Your task to perform on an android device: open app "Firefox Browser" (install if not already installed), go to login, and select forgot password Image 0: 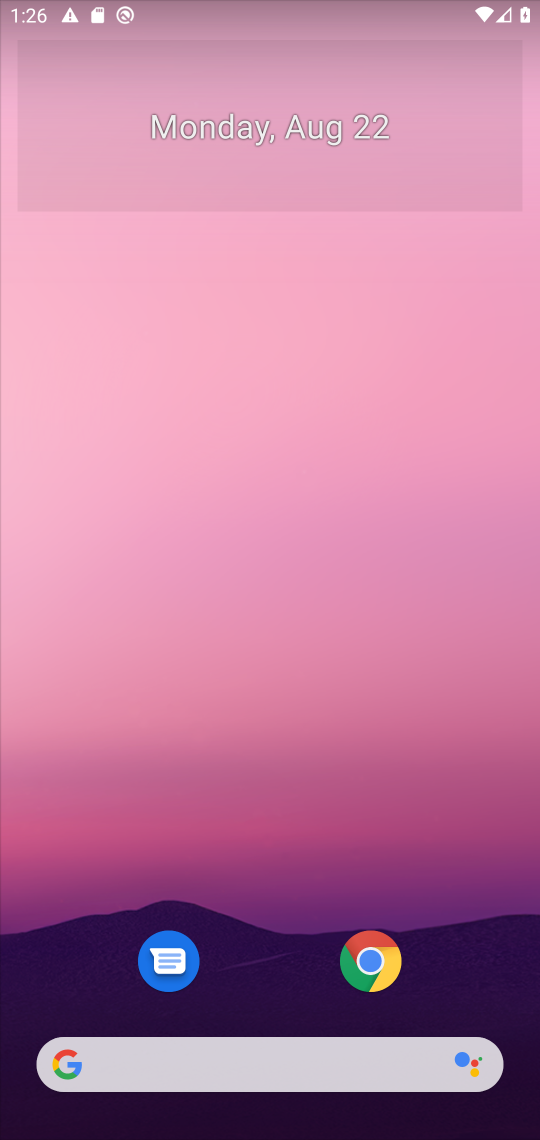
Step 0: press home button
Your task to perform on an android device: open app "Firefox Browser" (install if not already installed), go to login, and select forgot password Image 1: 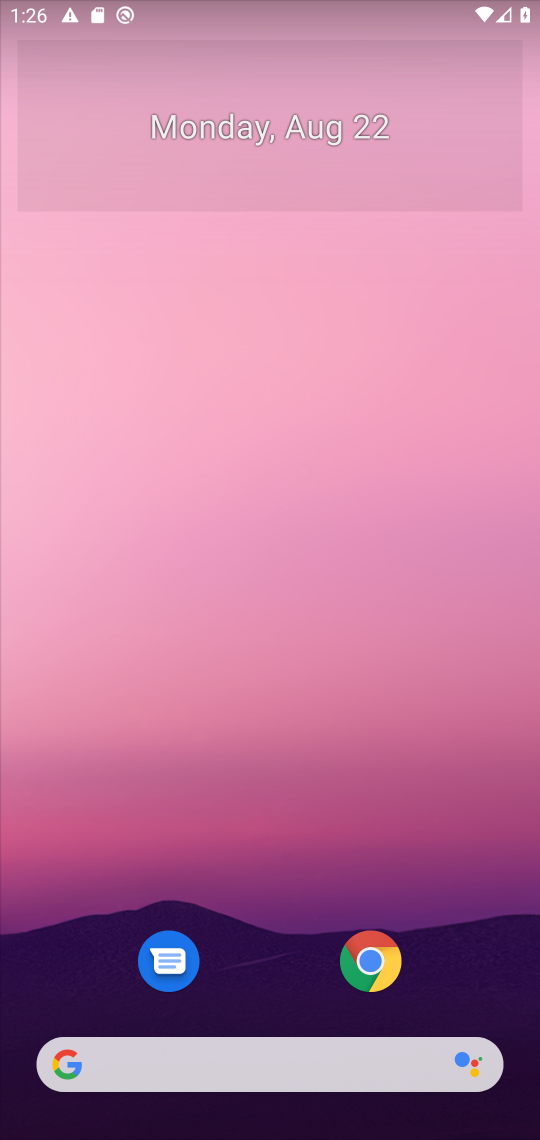
Step 1: drag from (477, 889) to (495, 193)
Your task to perform on an android device: open app "Firefox Browser" (install if not already installed), go to login, and select forgot password Image 2: 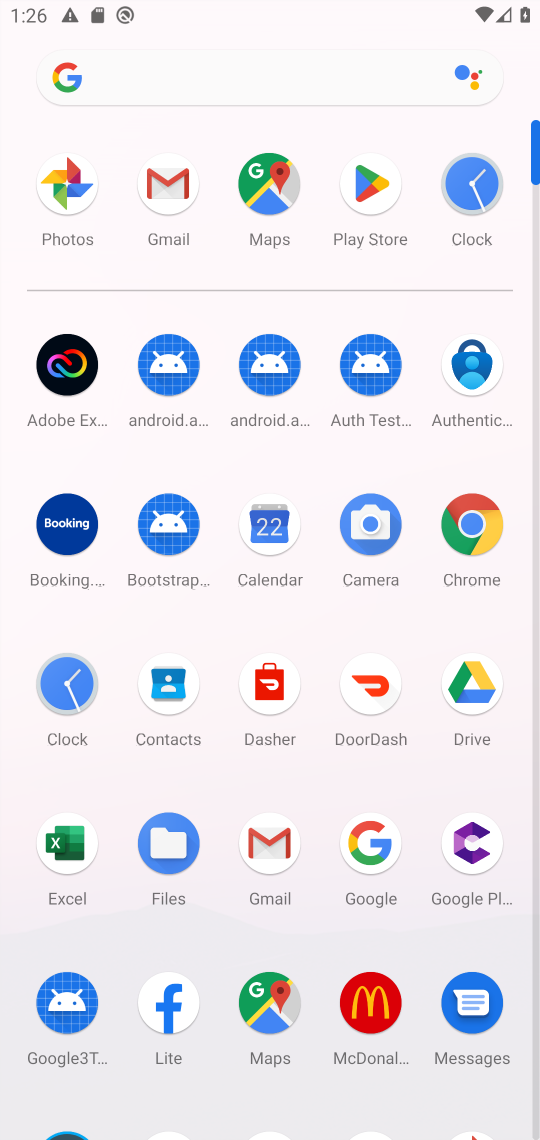
Step 2: click (363, 185)
Your task to perform on an android device: open app "Firefox Browser" (install if not already installed), go to login, and select forgot password Image 3: 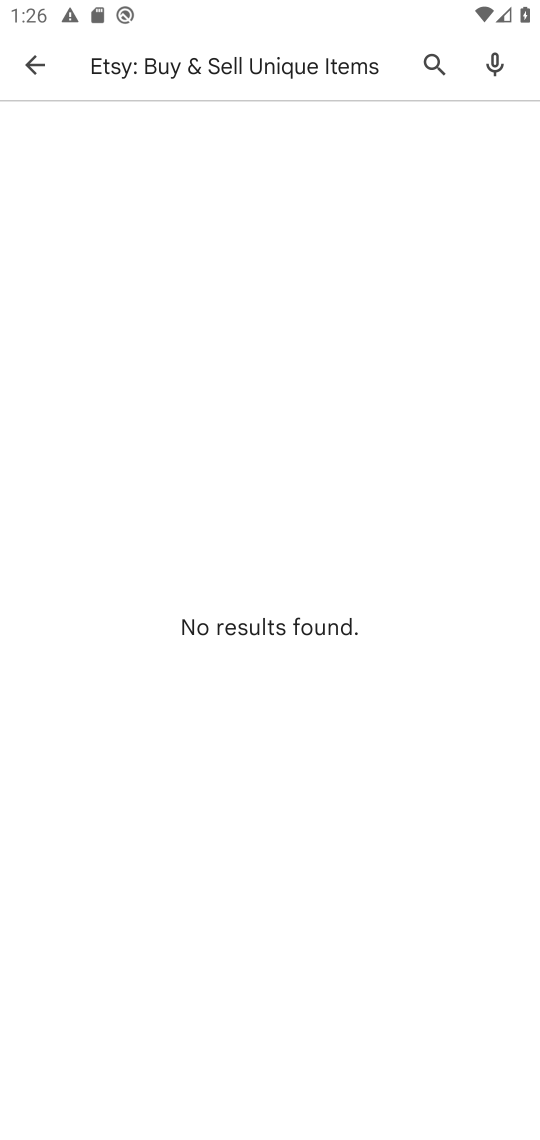
Step 3: press back button
Your task to perform on an android device: open app "Firefox Browser" (install if not already installed), go to login, and select forgot password Image 4: 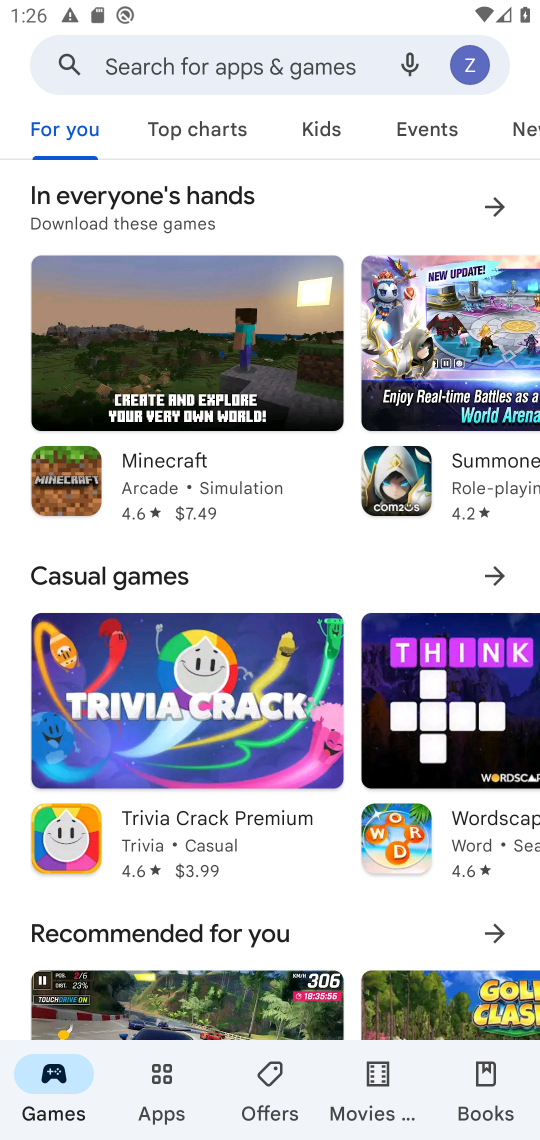
Step 4: click (312, 62)
Your task to perform on an android device: open app "Firefox Browser" (install if not already installed), go to login, and select forgot password Image 5: 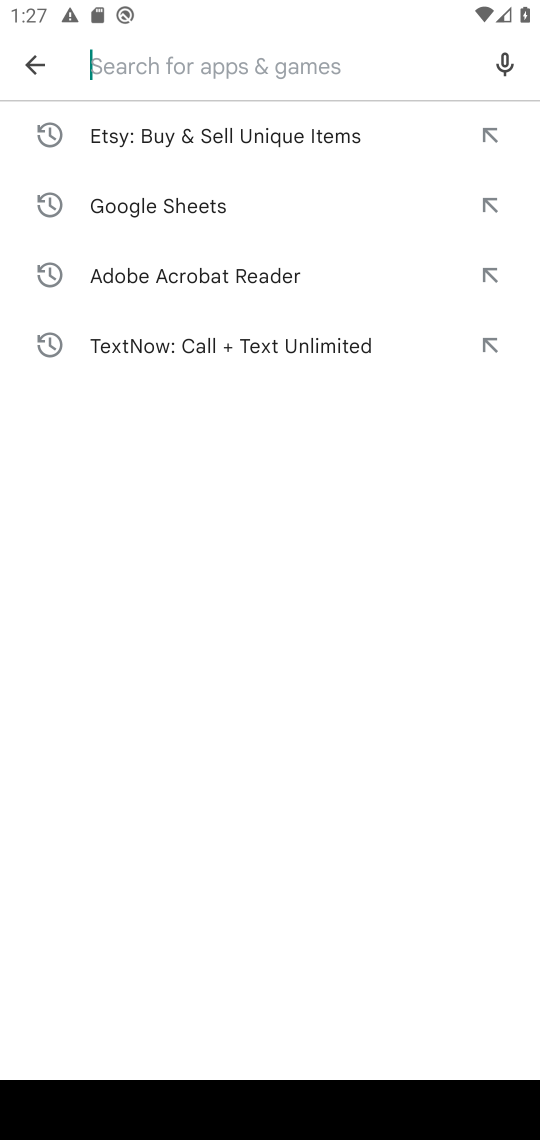
Step 5: type "Firefox Browser"
Your task to perform on an android device: open app "Firefox Browser" (install if not already installed), go to login, and select forgot password Image 6: 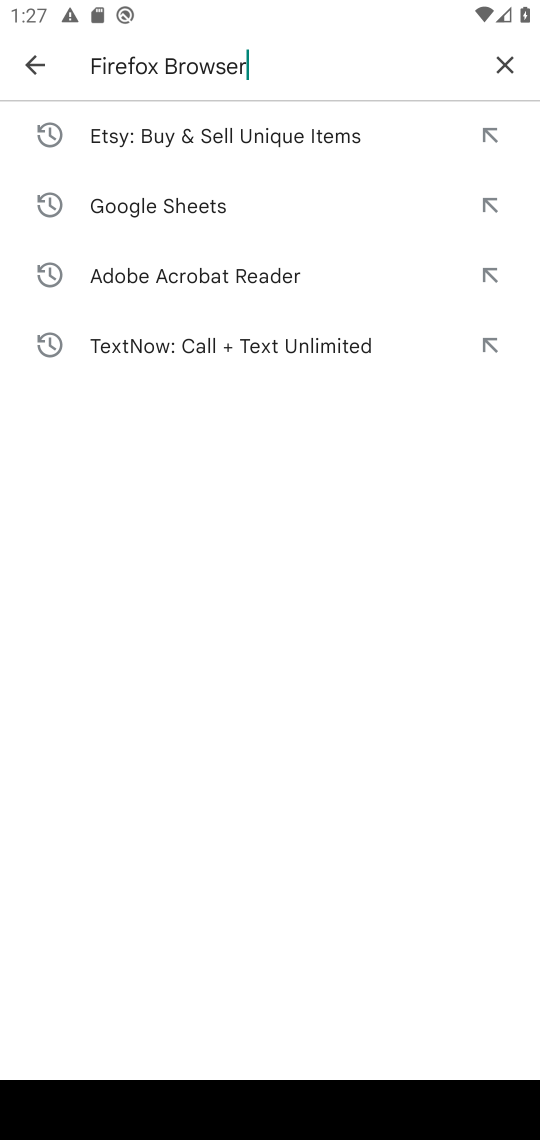
Step 6: press enter
Your task to perform on an android device: open app "Firefox Browser" (install if not already installed), go to login, and select forgot password Image 7: 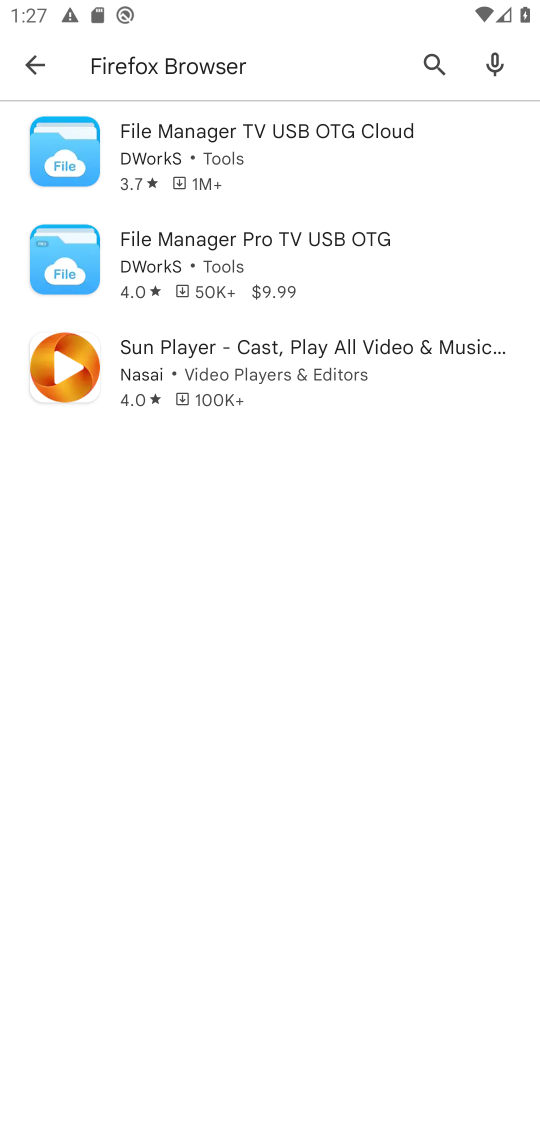
Step 7: task complete